Your task to perform on an android device: Turn off the flashlight Image 0: 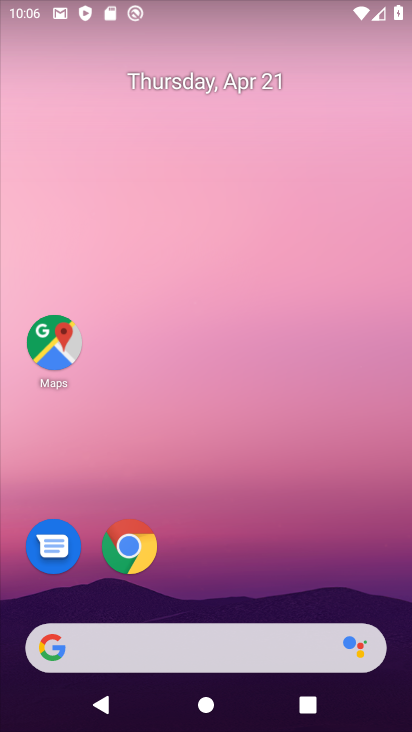
Step 0: drag from (245, 679) to (223, 174)
Your task to perform on an android device: Turn off the flashlight Image 1: 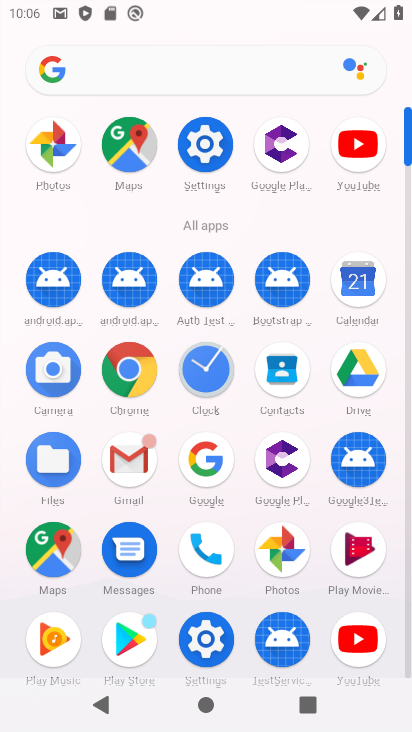
Step 1: click (203, 150)
Your task to perform on an android device: Turn off the flashlight Image 2: 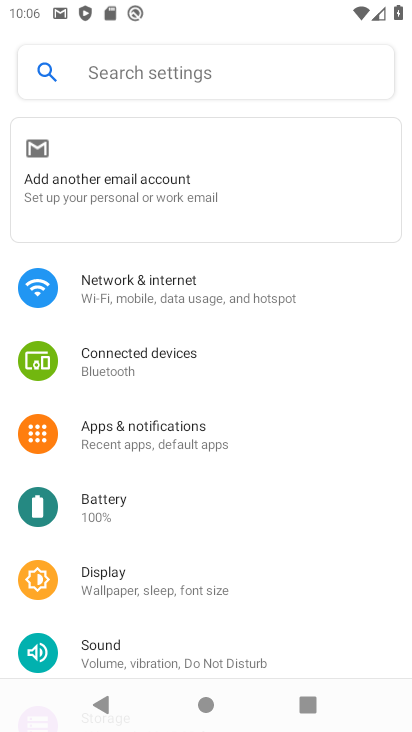
Step 2: click (182, 79)
Your task to perform on an android device: Turn off the flashlight Image 3: 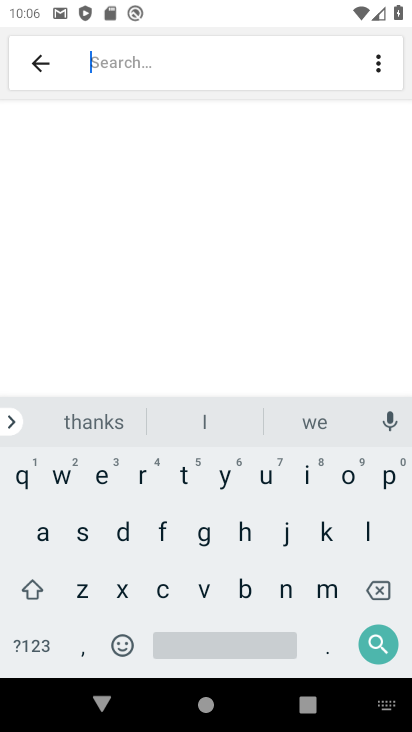
Step 3: click (159, 532)
Your task to perform on an android device: Turn off the flashlight Image 4: 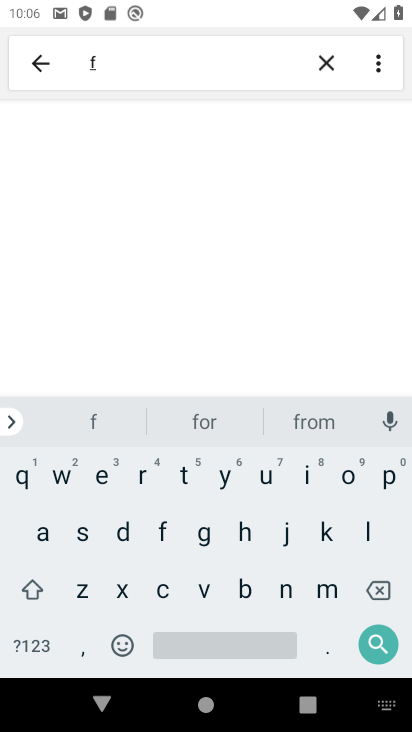
Step 4: click (362, 541)
Your task to perform on an android device: Turn off the flashlight Image 5: 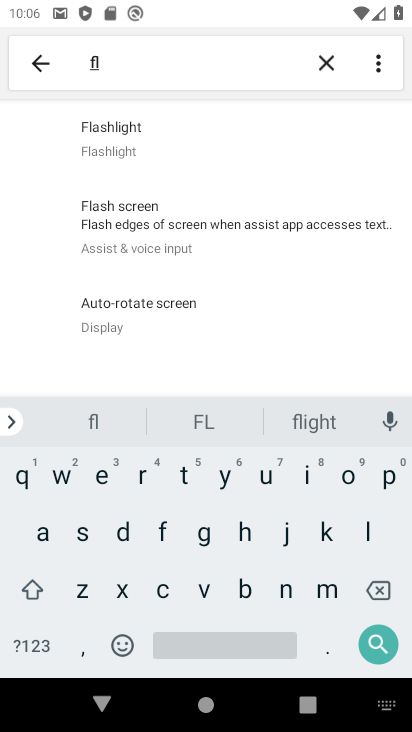
Step 5: click (174, 154)
Your task to perform on an android device: Turn off the flashlight Image 6: 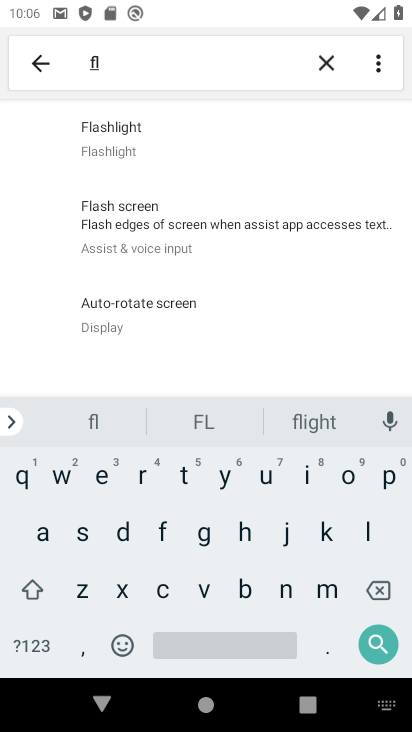
Step 6: click (166, 163)
Your task to perform on an android device: Turn off the flashlight Image 7: 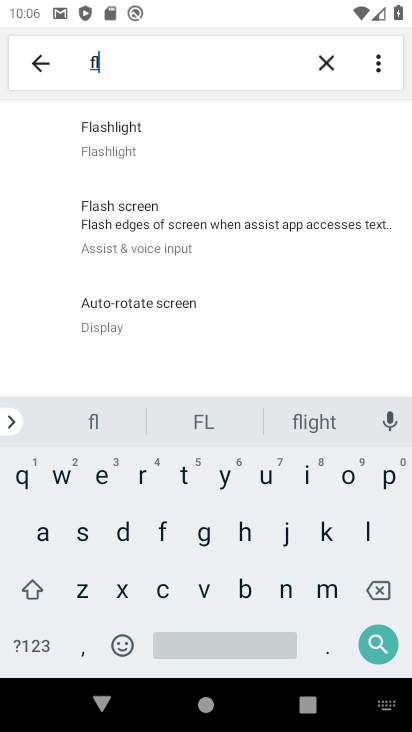
Step 7: task complete